Your task to perform on an android device: turn off javascript in the chrome app Image 0: 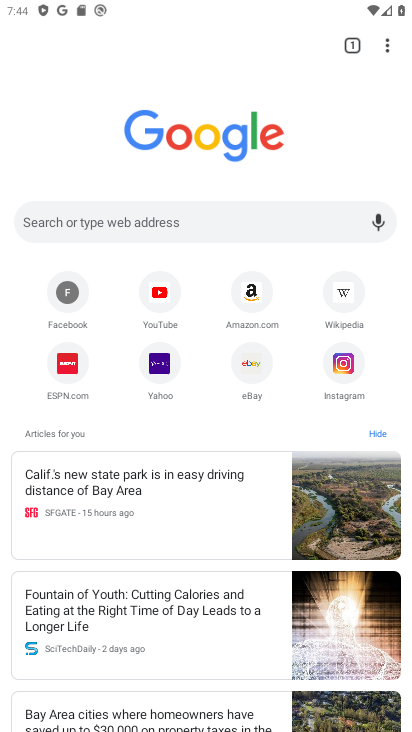
Step 0: click (383, 43)
Your task to perform on an android device: turn off javascript in the chrome app Image 1: 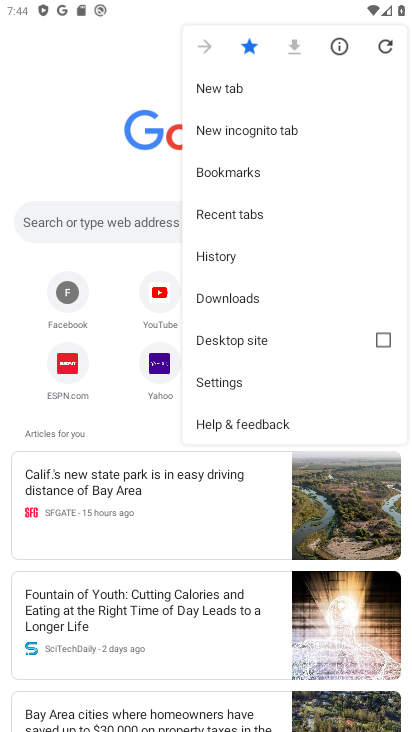
Step 1: click (241, 387)
Your task to perform on an android device: turn off javascript in the chrome app Image 2: 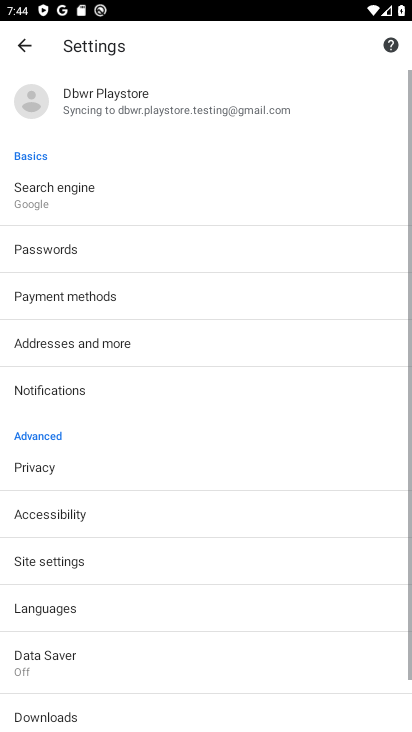
Step 2: drag from (207, 596) to (211, 426)
Your task to perform on an android device: turn off javascript in the chrome app Image 3: 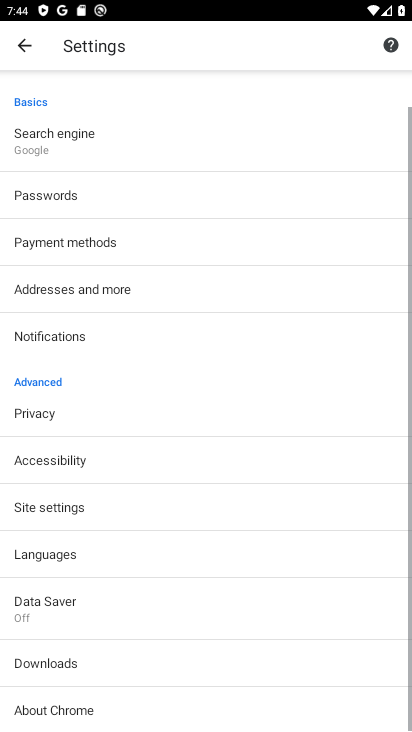
Step 3: click (90, 506)
Your task to perform on an android device: turn off javascript in the chrome app Image 4: 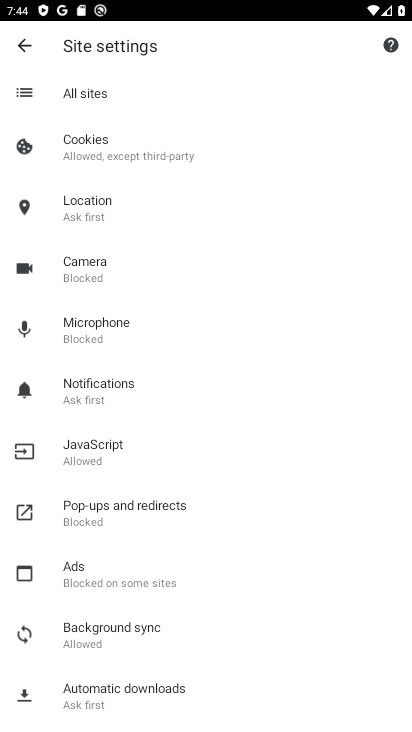
Step 4: click (118, 443)
Your task to perform on an android device: turn off javascript in the chrome app Image 5: 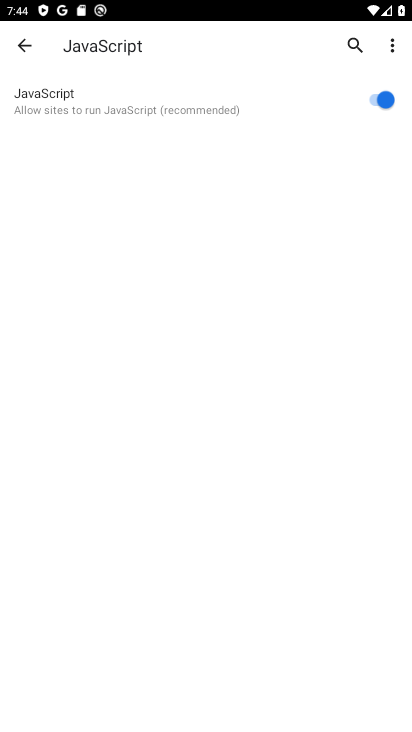
Step 5: click (369, 101)
Your task to perform on an android device: turn off javascript in the chrome app Image 6: 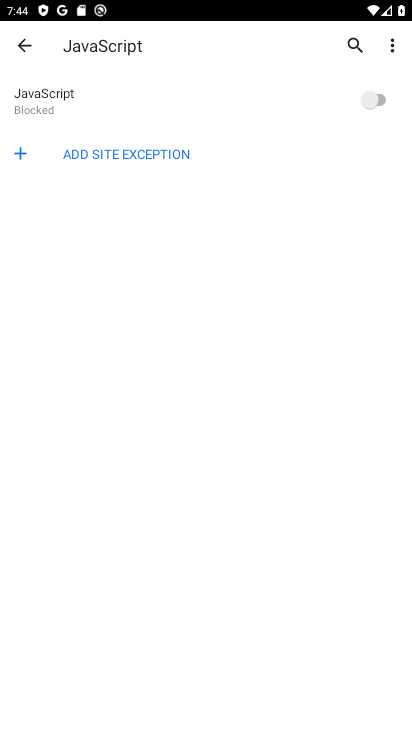
Step 6: task complete